Your task to perform on an android device: check the backup settings in the google photos Image 0: 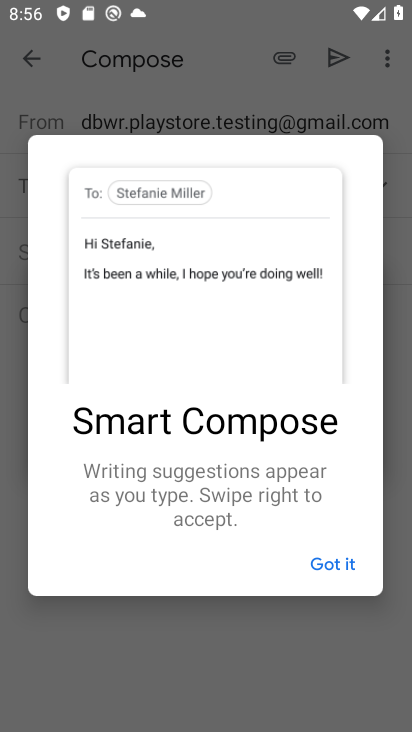
Step 0: press home button
Your task to perform on an android device: check the backup settings in the google photos Image 1: 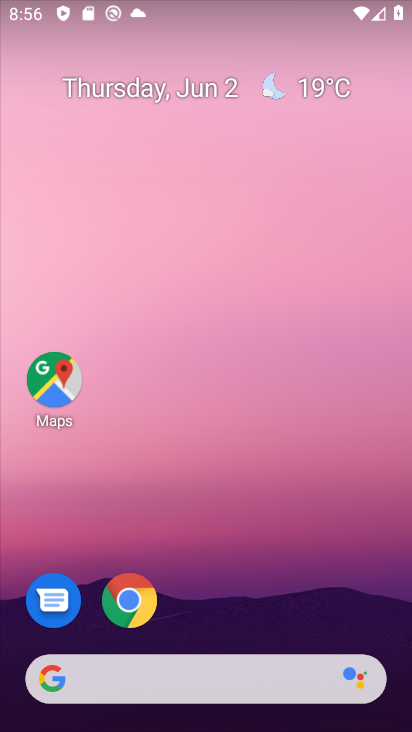
Step 1: drag from (243, 619) to (243, 223)
Your task to perform on an android device: check the backup settings in the google photos Image 2: 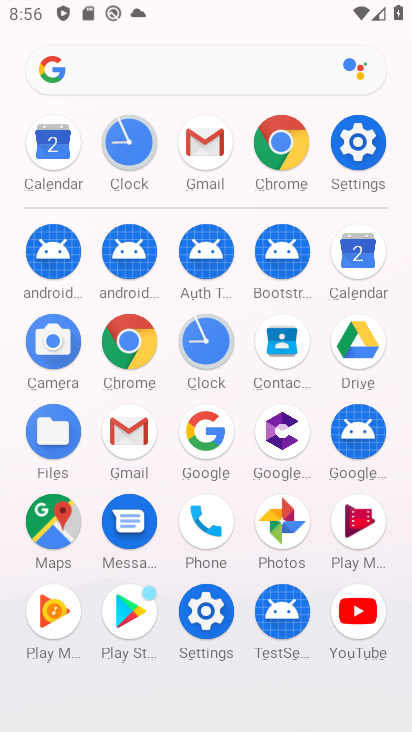
Step 2: click (296, 534)
Your task to perform on an android device: check the backup settings in the google photos Image 3: 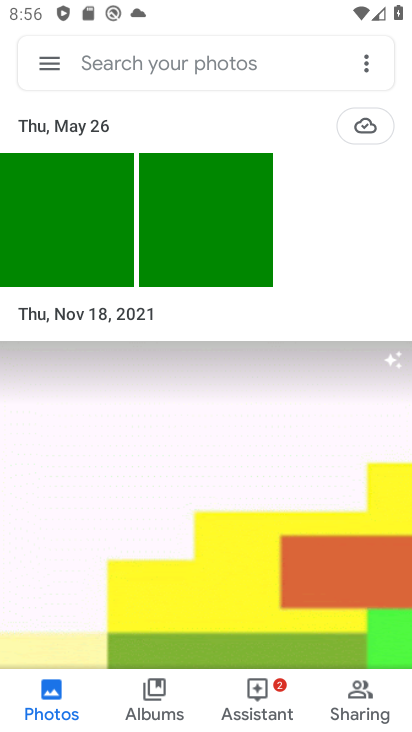
Step 3: click (38, 65)
Your task to perform on an android device: check the backup settings in the google photos Image 4: 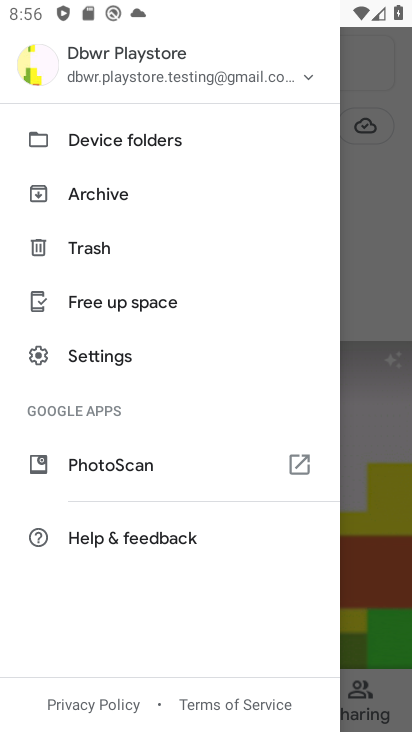
Step 4: click (130, 356)
Your task to perform on an android device: check the backup settings in the google photos Image 5: 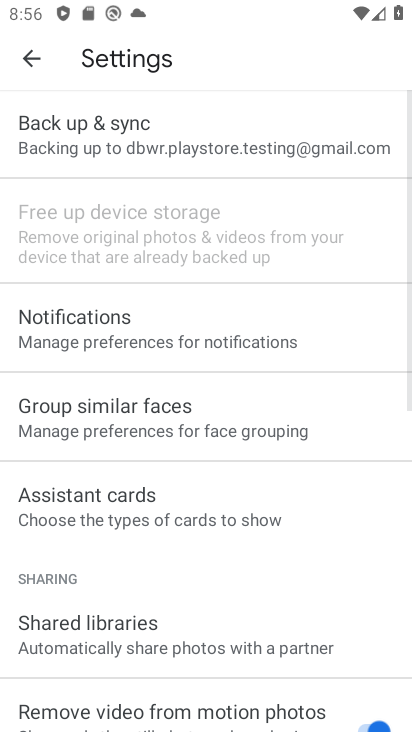
Step 5: click (174, 119)
Your task to perform on an android device: check the backup settings in the google photos Image 6: 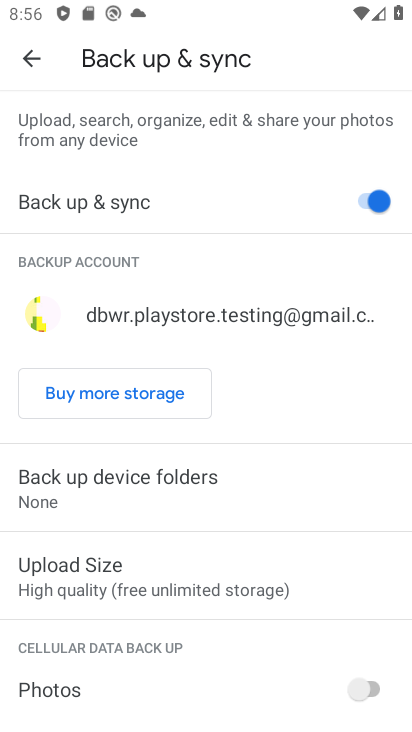
Step 6: task complete